Your task to perform on an android device: Show me recent news Image 0: 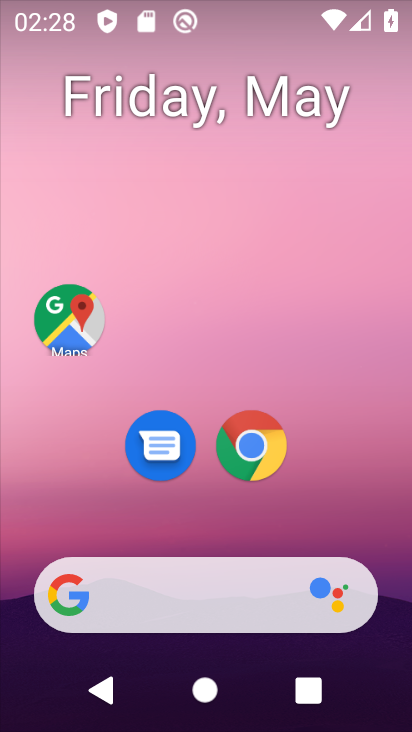
Step 0: click (206, 103)
Your task to perform on an android device: Show me recent news Image 1: 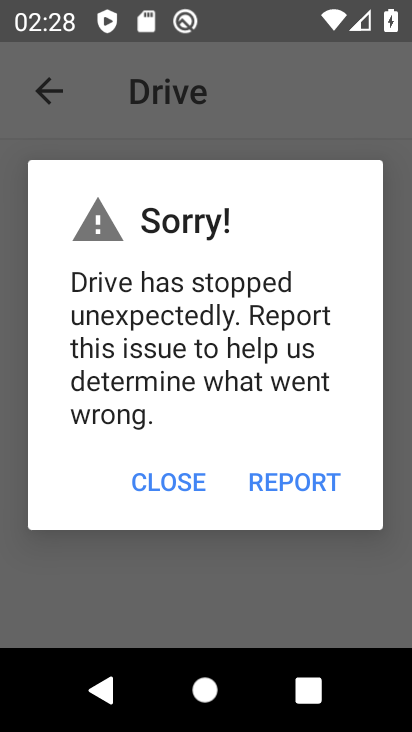
Step 1: task complete